Your task to perform on an android device: turn off picture-in-picture Image 0: 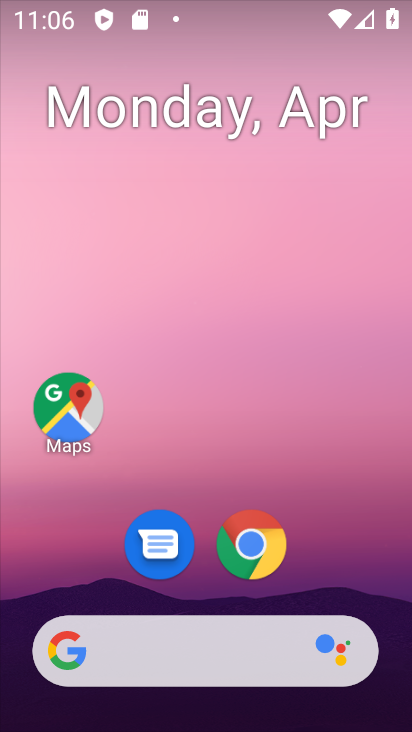
Step 0: click (243, 550)
Your task to perform on an android device: turn off picture-in-picture Image 1: 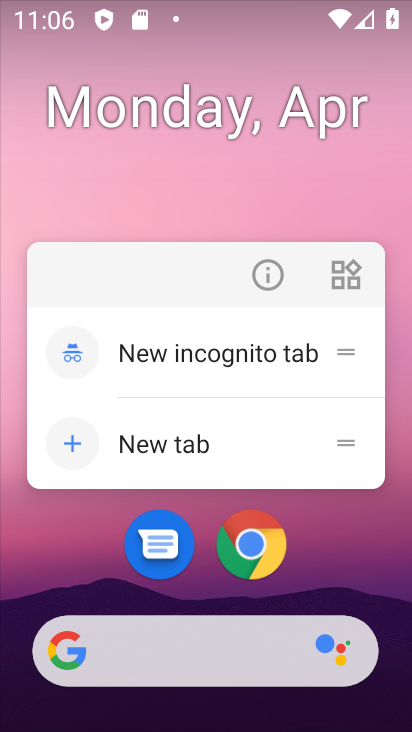
Step 1: click (274, 284)
Your task to perform on an android device: turn off picture-in-picture Image 2: 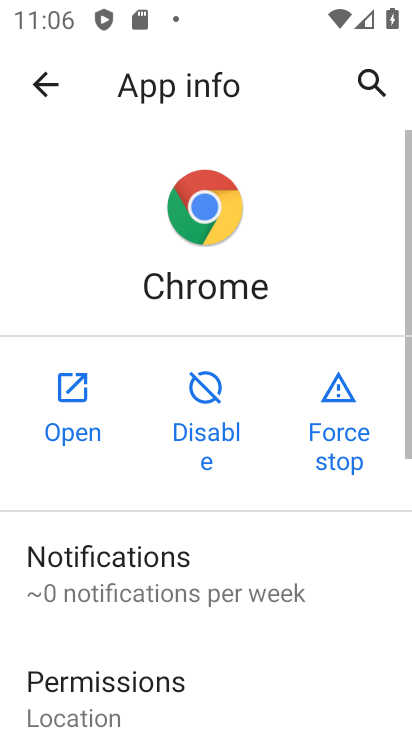
Step 2: drag from (317, 556) to (281, 177)
Your task to perform on an android device: turn off picture-in-picture Image 3: 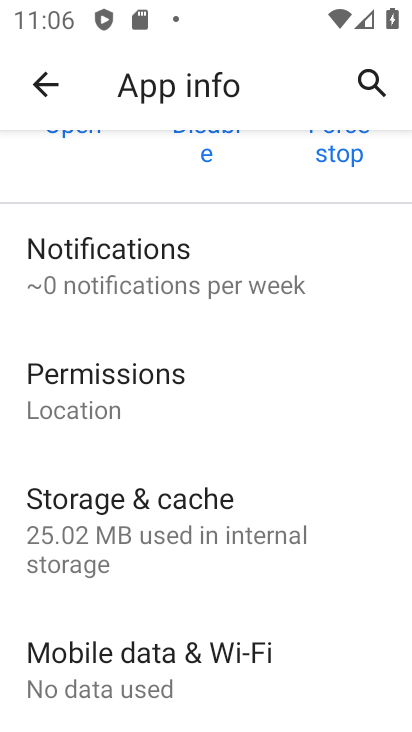
Step 3: drag from (310, 458) to (265, 167)
Your task to perform on an android device: turn off picture-in-picture Image 4: 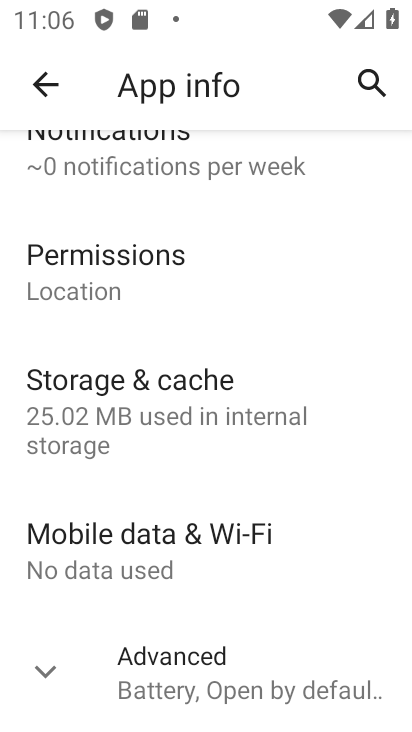
Step 4: click (50, 672)
Your task to perform on an android device: turn off picture-in-picture Image 5: 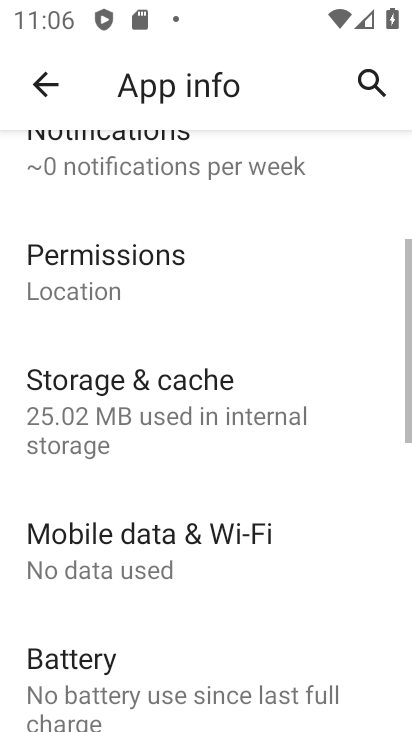
Step 5: drag from (302, 659) to (263, 195)
Your task to perform on an android device: turn off picture-in-picture Image 6: 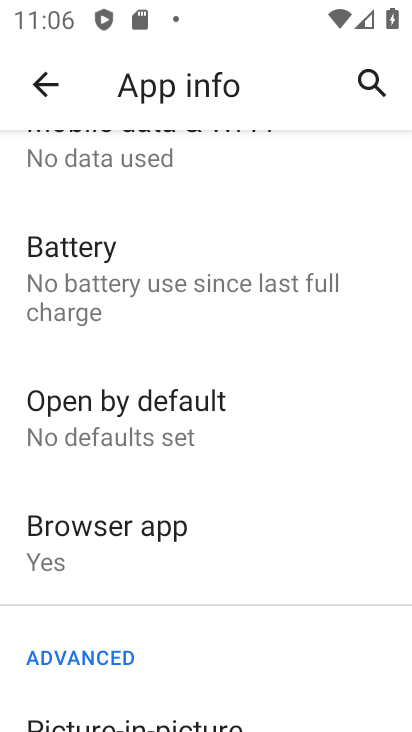
Step 6: drag from (277, 526) to (246, 226)
Your task to perform on an android device: turn off picture-in-picture Image 7: 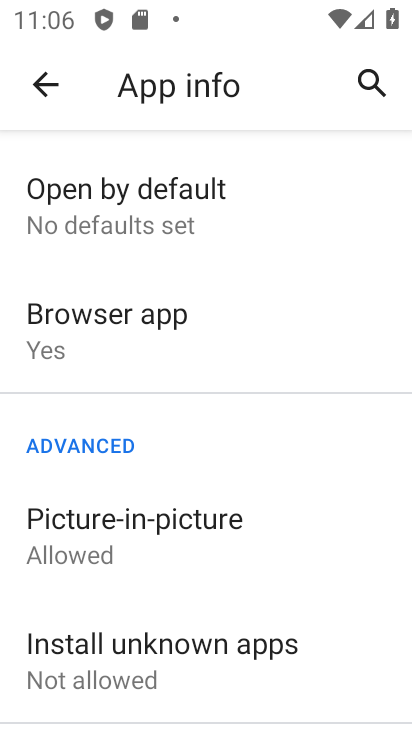
Step 7: click (84, 524)
Your task to perform on an android device: turn off picture-in-picture Image 8: 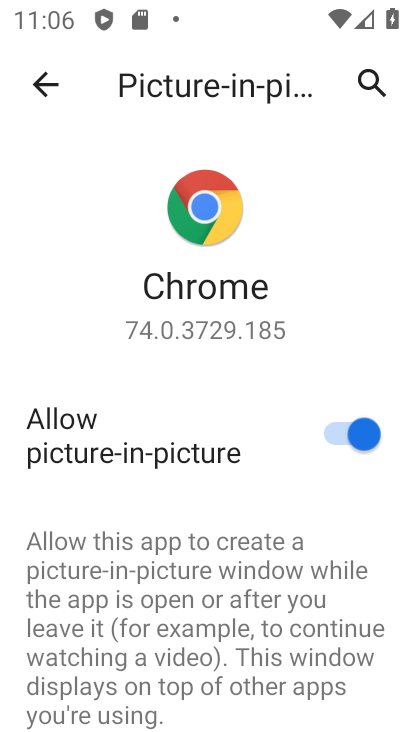
Step 8: click (353, 428)
Your task to perform on an android device: turn off picture-in-picture Image 9: 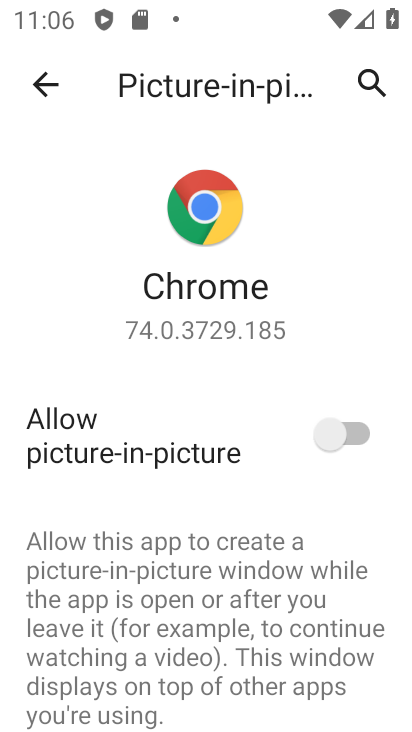
Step 9: task complete